Your task to perform on an android device: Search for pizza restaurants on Maps Image 0: 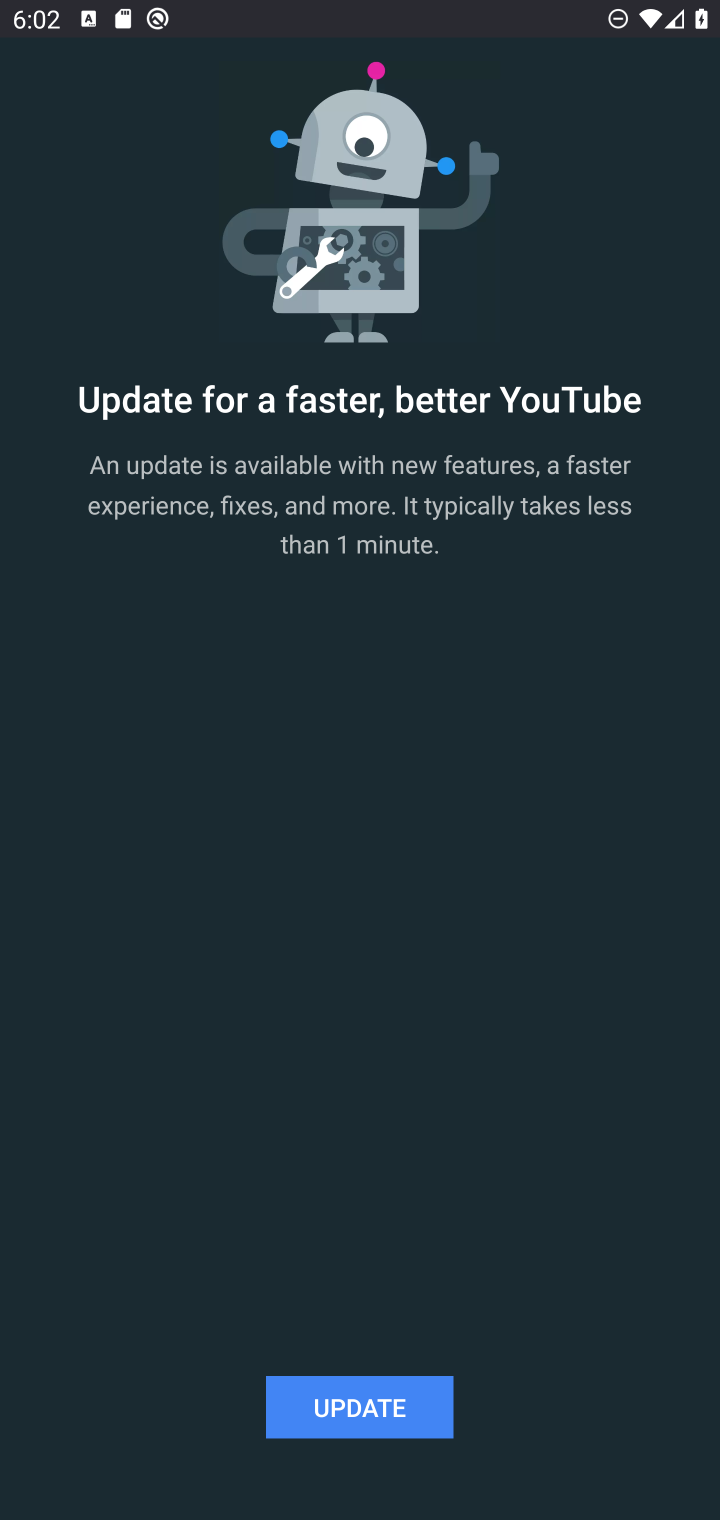
Step 0: press home button
Your task to perform on an android device: Search for pizza restaurants on Maps Image 1: 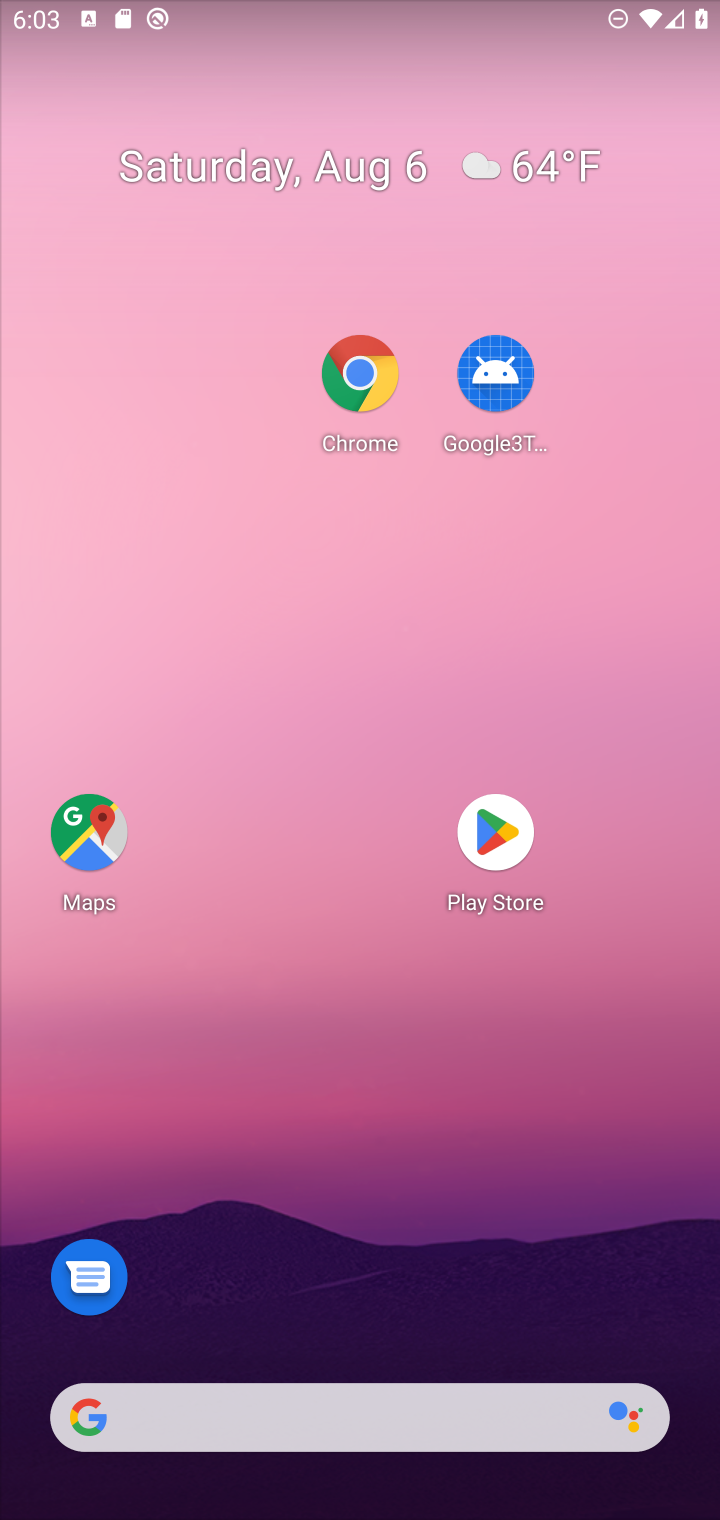
Step 1: drag from (353, 1388) to (129, 19)
Your task to perform on an android device: Search for pizza restaurants on Maps Image 2: 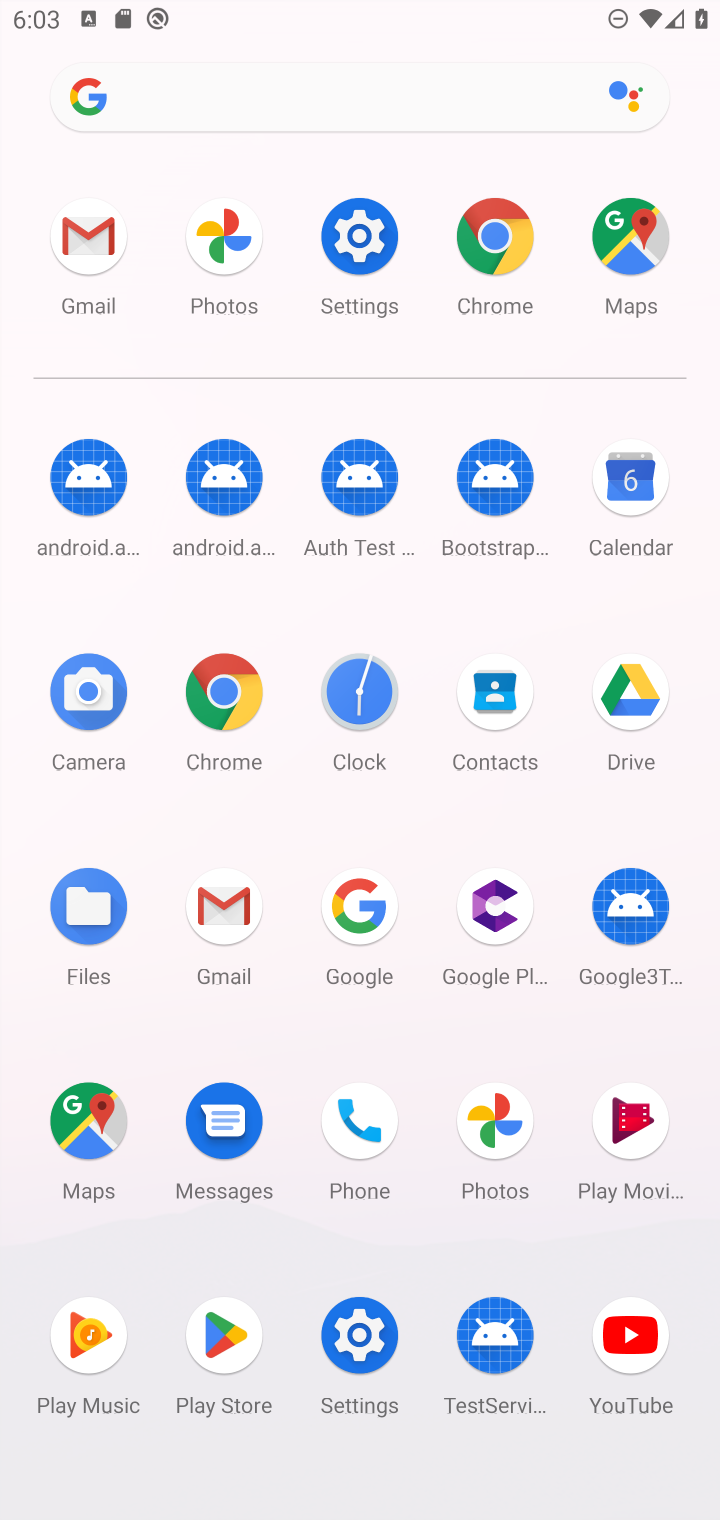
Step 2: click (93, 1145)
Your task to perform on an android device: Search for pizza restaurants on Maps Image 3: 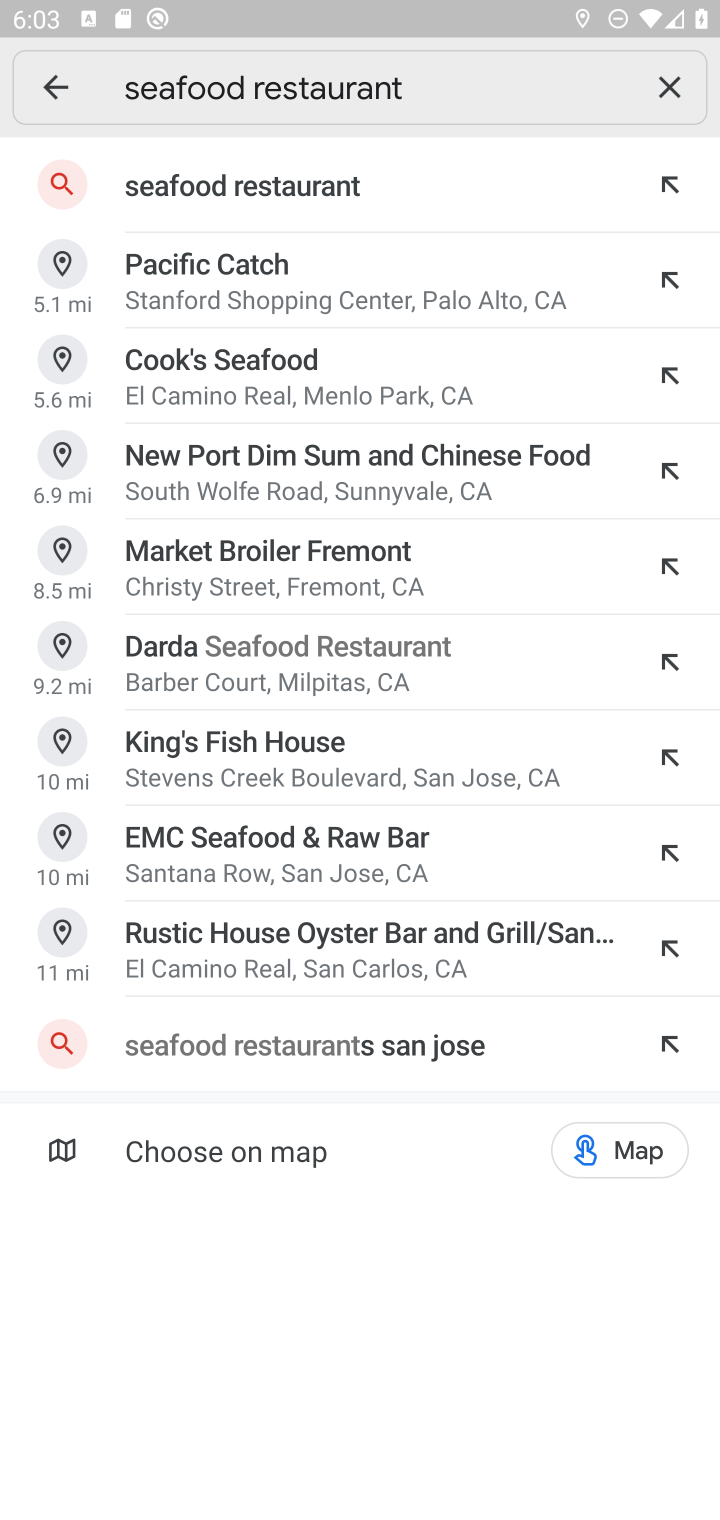
Step 3: click (665, 80)
Your task to perform on an android device: Search for pizza restaurants on Maps Image 4: 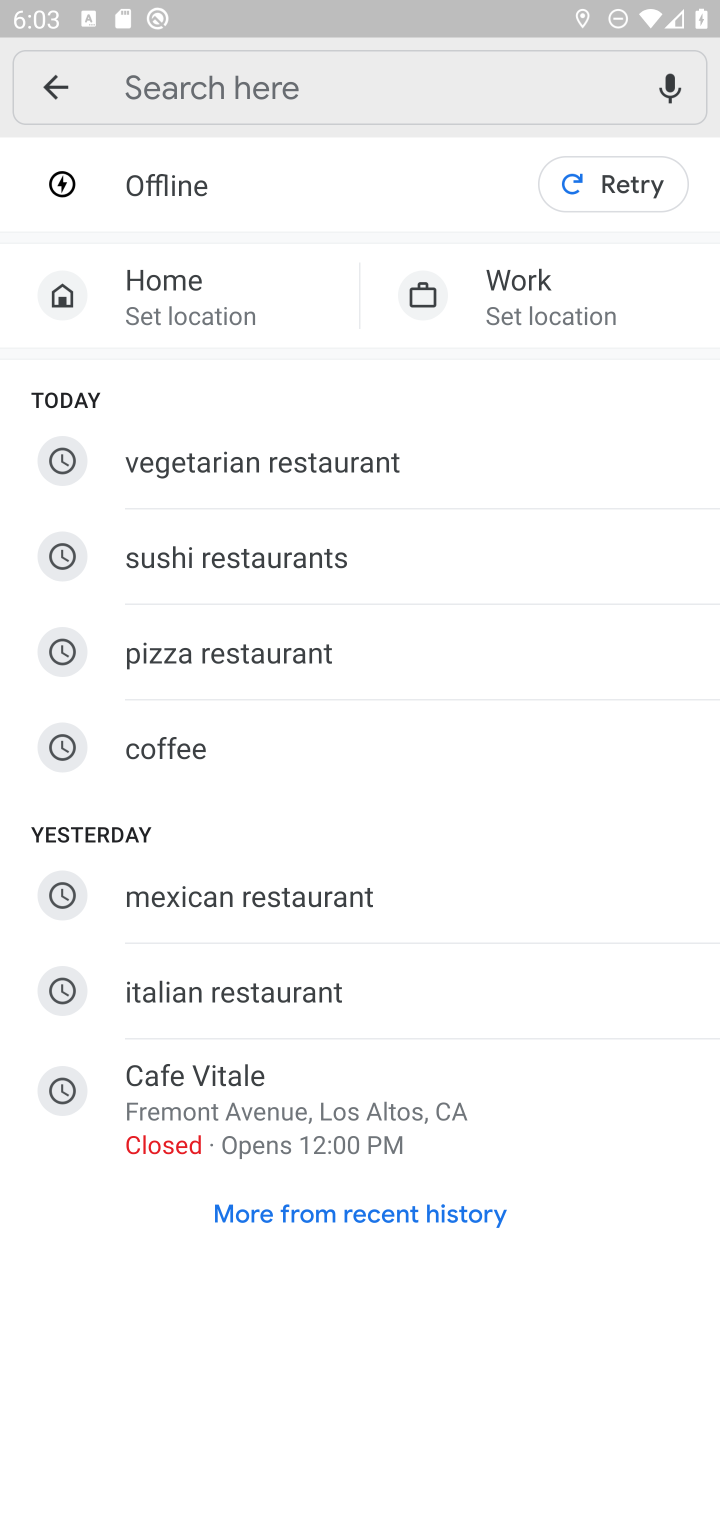
Step 4: click (557, 82)
Your task to perform on an android device: Search for pizza restaurants on Maps Image 5: 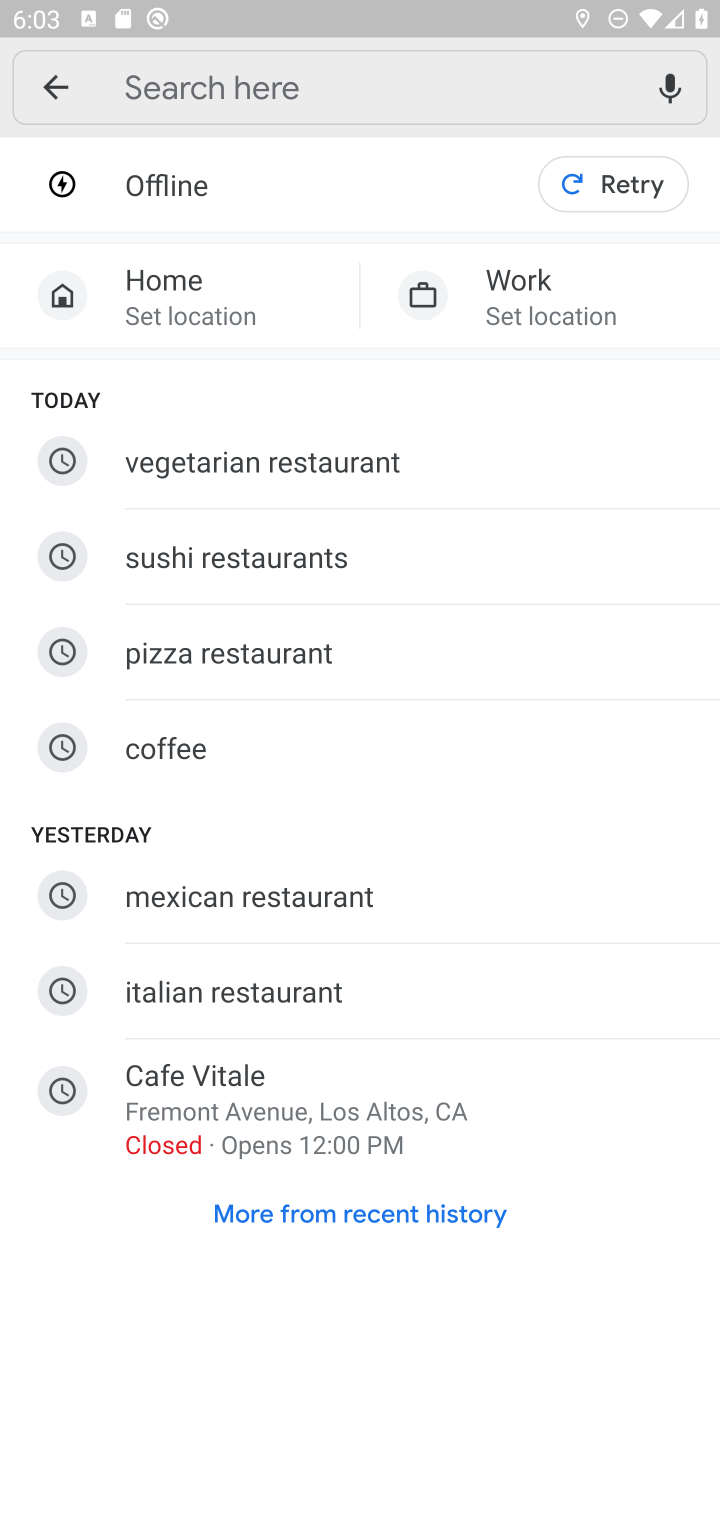
Step 5: click (557, 82)
Your task to perform on an android device: Search for pizza restaurants on Maps Image 6: 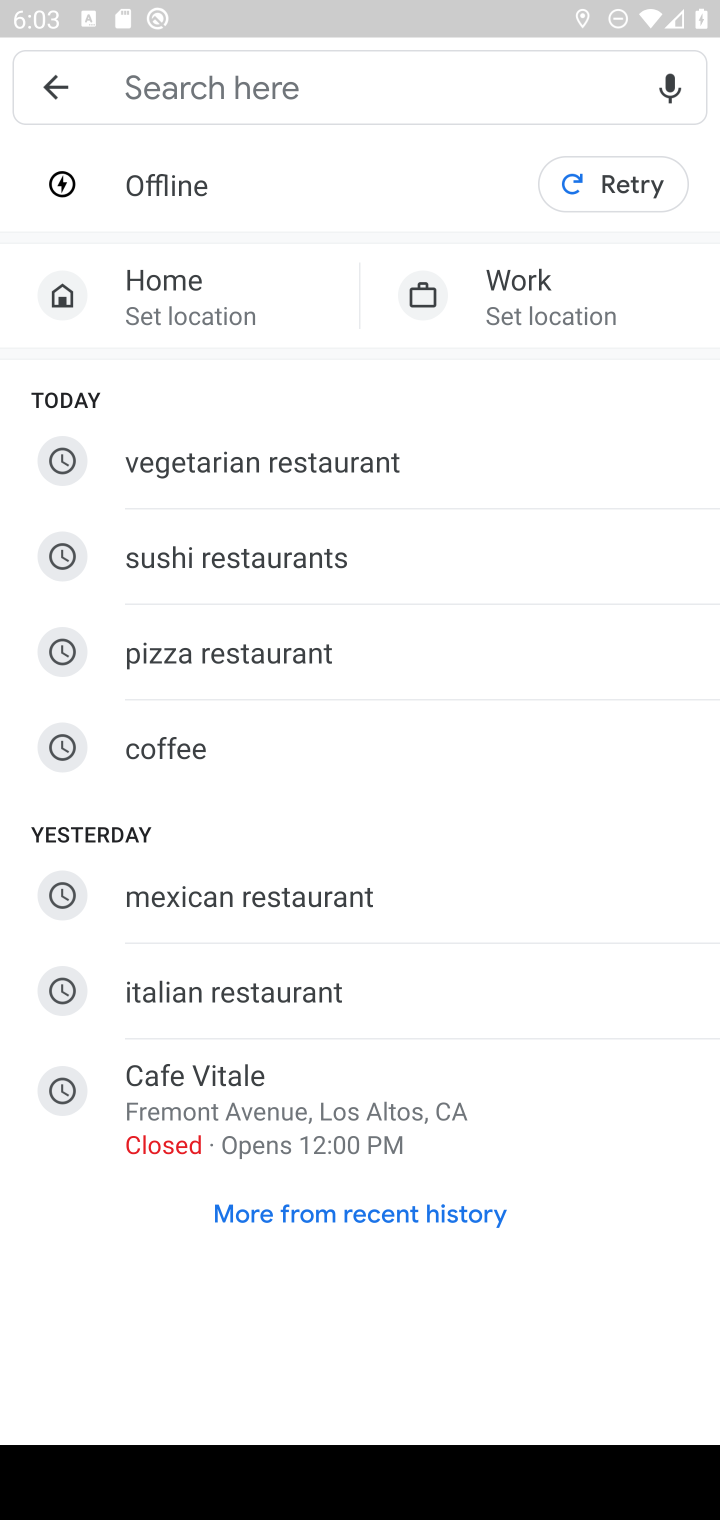
Step 6: click (385, 638)
Your task to perform on an android device: Search for pizza restaurants on Maps Image 7: 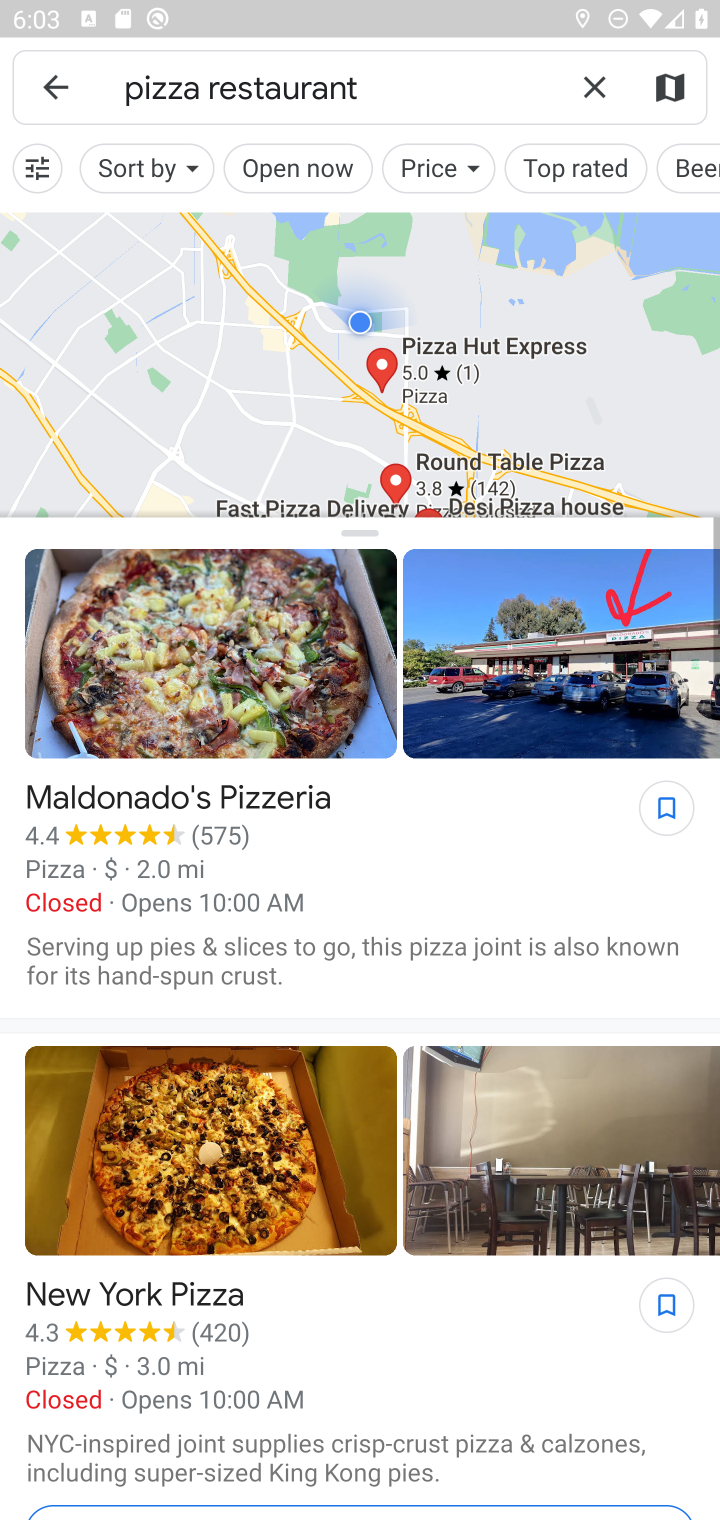
Step 7: task complete